Your task to perform on an android device: Clear the shopping cart on bestbuy.com. Add lenovo thinkpad to the cart on bestbuy.com Image 0: 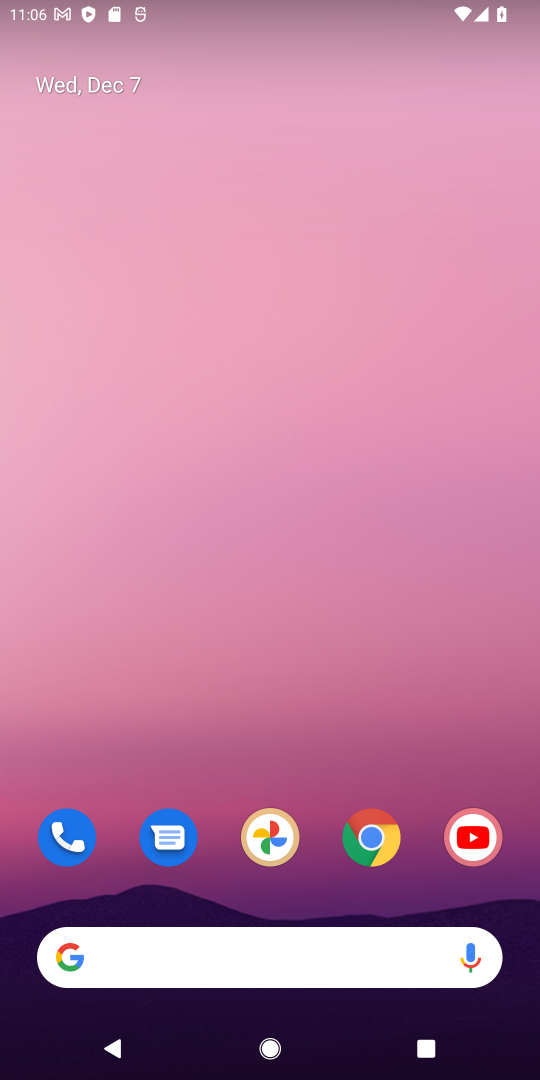
Step 0: click (362, 839)
Your task to perform on an android device: Clear the shopping cart on bestbuy.com. Add lenovo thinkpad to the cart on bestbuy.com Image 1: 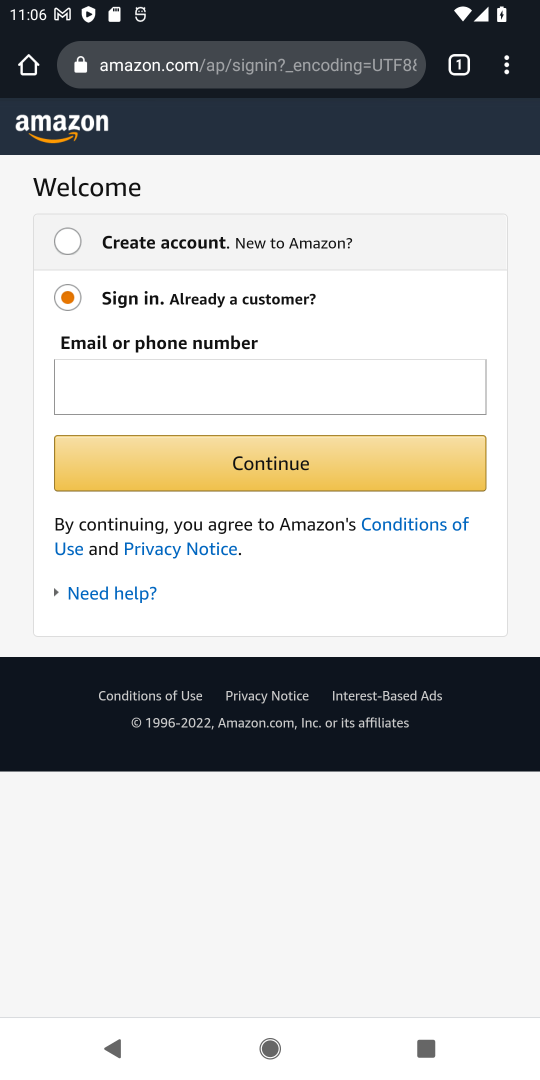
Step 1: click (292, 72)
Your task to perform on an android device: Clear the shopping cart on bestbuy.com. Add lenovo thinkpad to the cart on bestbuy.com Image 2: 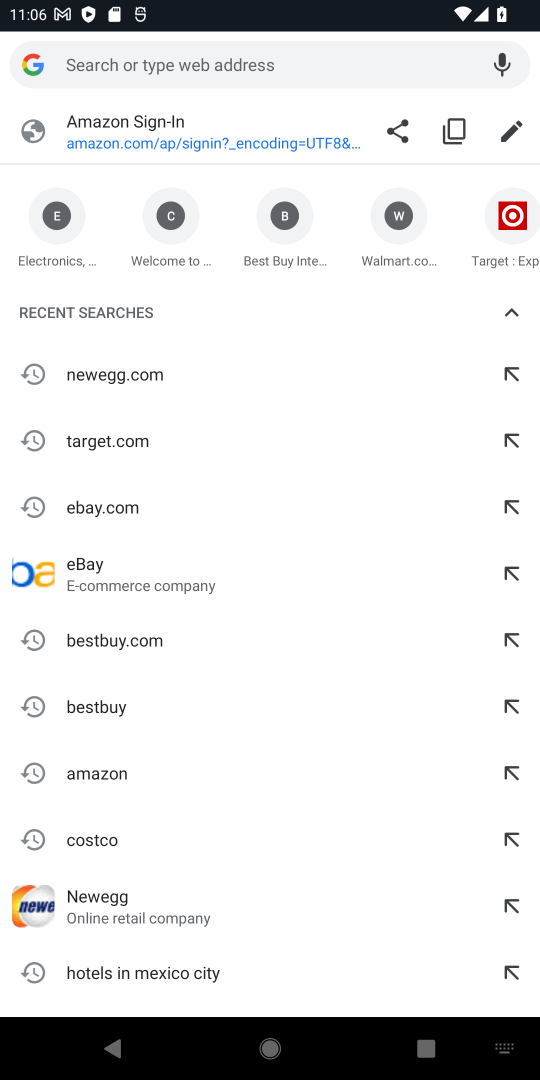
Step 2: click (128, 644)
Your task to perform on an android device: Clear the shopping cart on bestbuy.com. Add lenovo thinkpad to the cart on bestbuy.com Image 3: 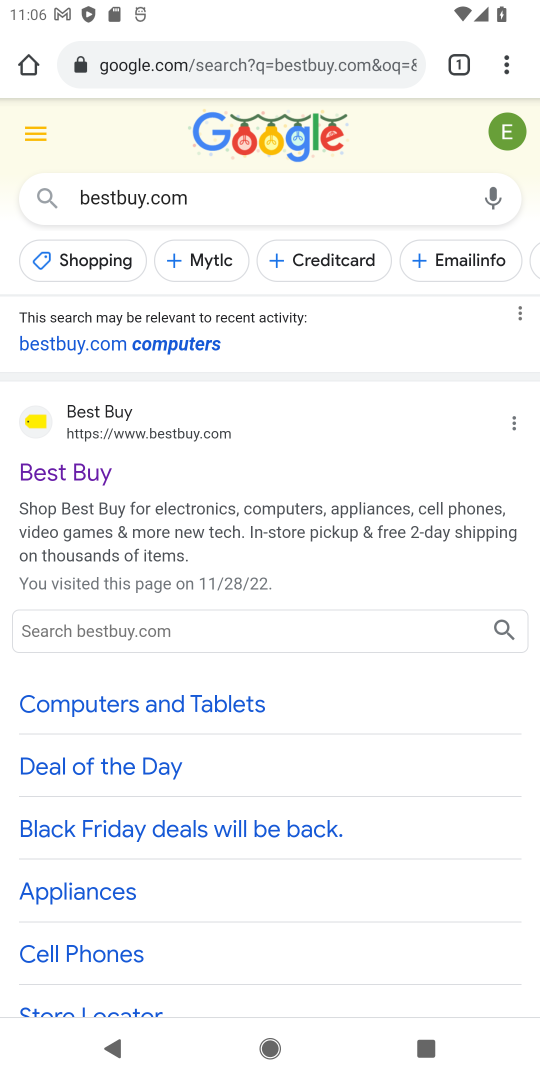
Step 3: click (149, 430)
Your task to perform on an android device: Clear the shopping cart on bestbuy.com. Add lenovo thinkpad to the cart on bestbuy.com Image 4: 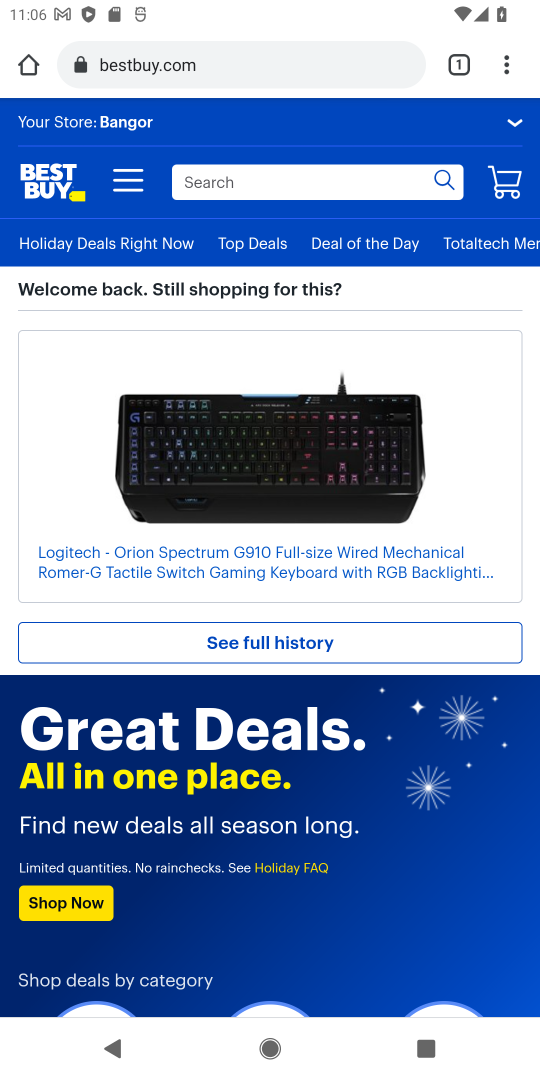
Step 4: click (512, 188)
Your task to perform on an android device: Clear the shopping cart on bestbuy.com. Add lenovo thinkpad to the cart on bestbuy.com Image 5: 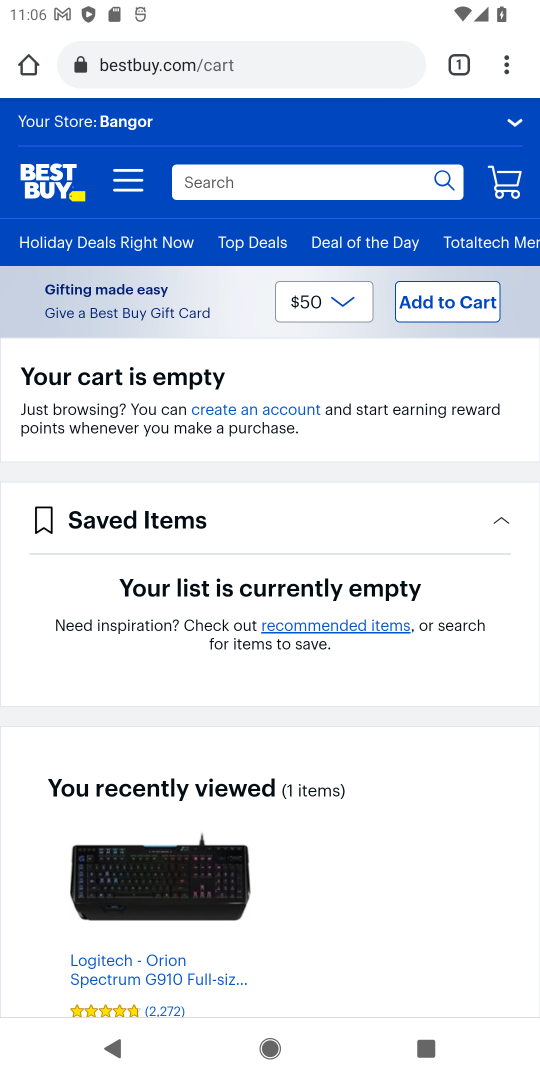
Step 5: click (372, 183)
Your task to perform on an android device: Clear the shopping cart on bestbuy.com. Add lenovo thinkpad to the cart on bestbuy.com Image 6: 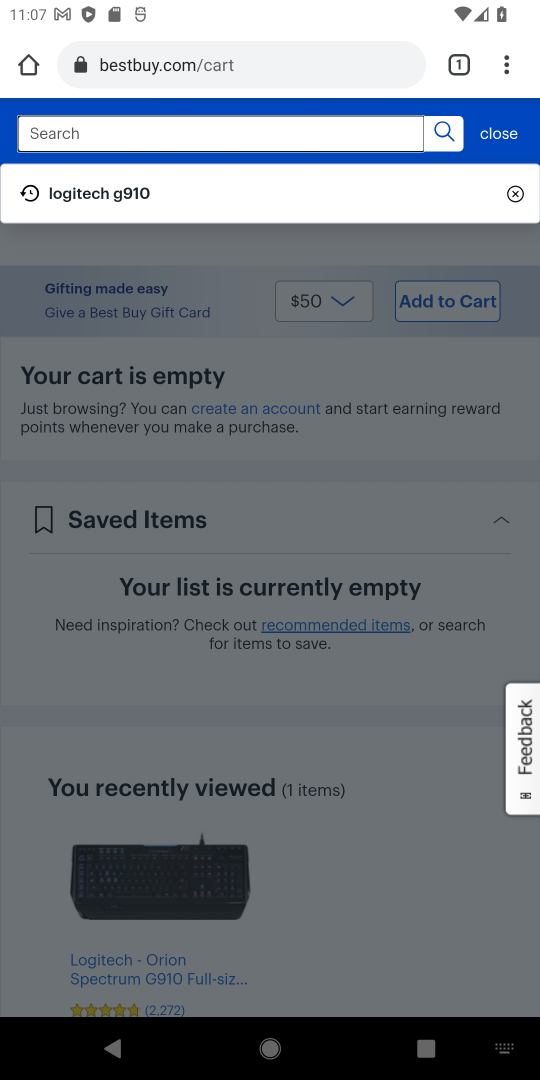
Step 6: type " lenovo thinkpad"
Your task to perform on an android device: Clear the shopping cart on bestbuy.com. Add lenovo thinkpad to the cart on bestbuy.com Image 7: 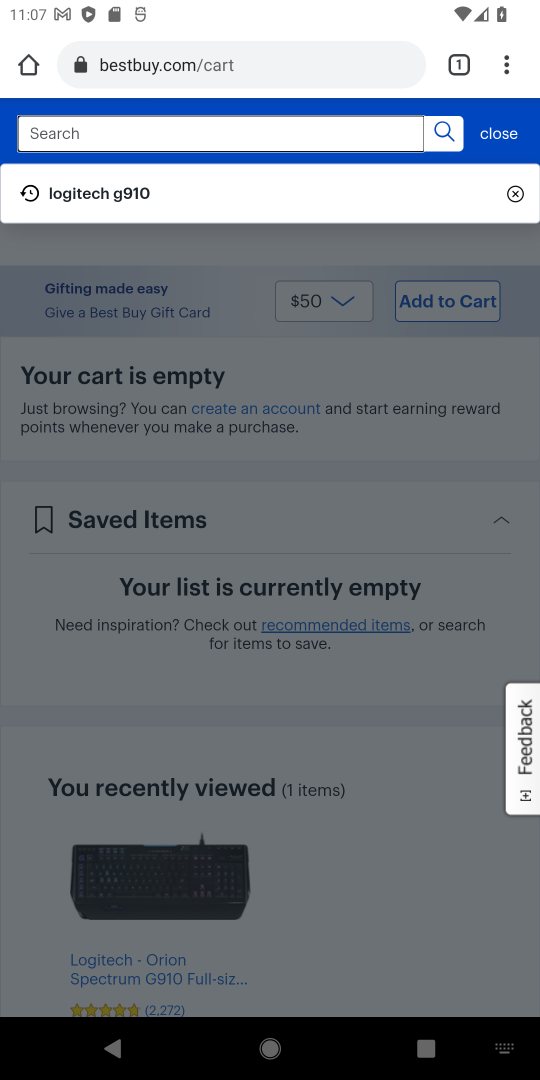
Step 7: press enter
Your task to perform on an android device: Clear the shopping cart on bestbuy.com. Add lenovo thinkpad to the cart on bestbuy.com Image 8: 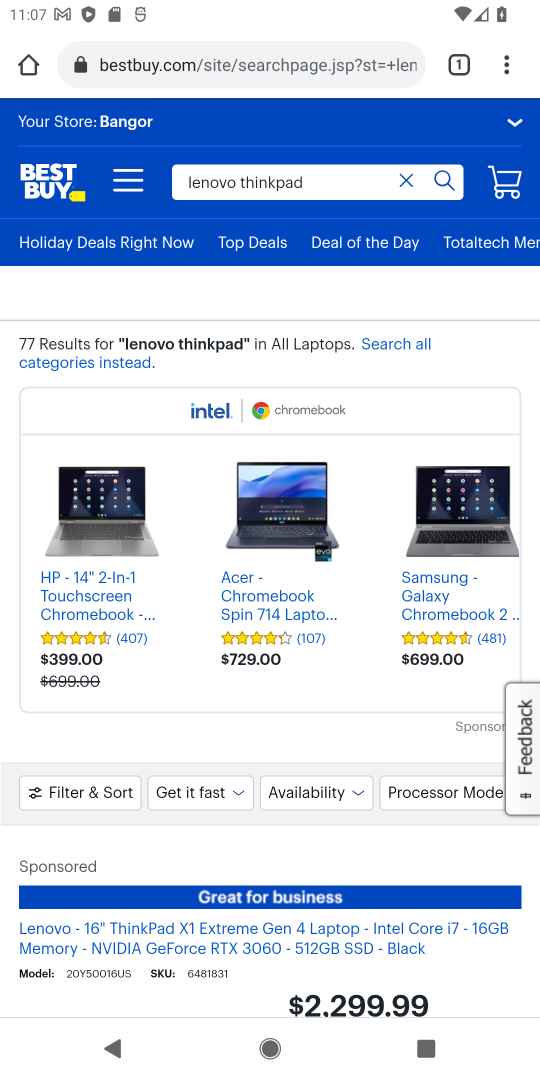
Step 8: drag from (418, 641) to (387, 257)
Your task to perform on an android device: Clear the shopping cart on bestbuy.com. Add lenovo thinkpad to the cart on bestbuy.com Image 9: 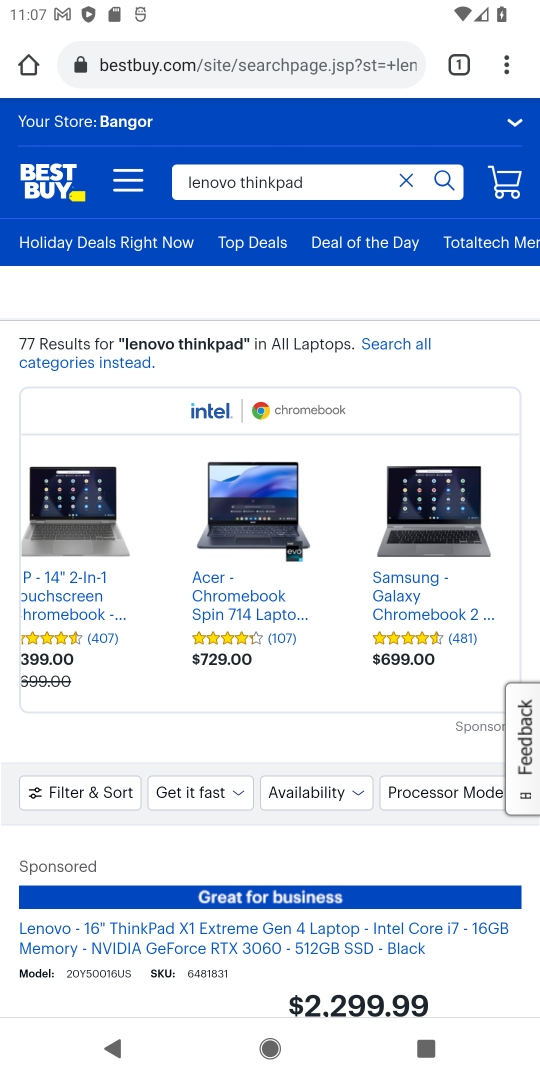
Step 9: drag from (401, 637) to (442, 317)
Your task to perform on an android device: Clear the shopping cart on bestbuy.com. Add lenovo thinkpad to the cart on bestbuy.com Image 10: 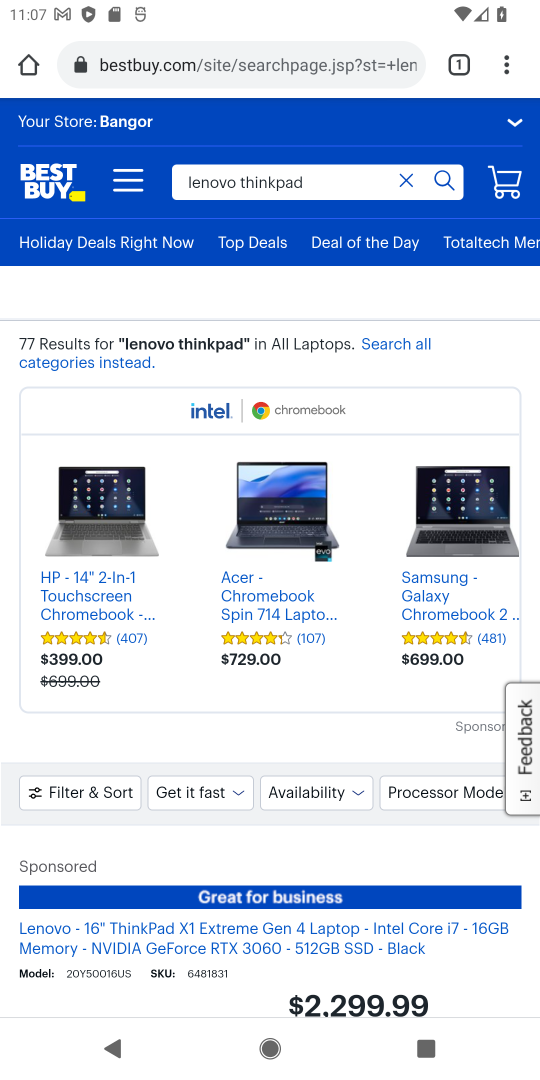
Step 10: drag from (391, 758) to (408, 438)
Your task to perform on an android device: Clear the shopping cart on bestbuy.com. Add lenovo thinkpad to the cart on bestbuy.com Image 11: 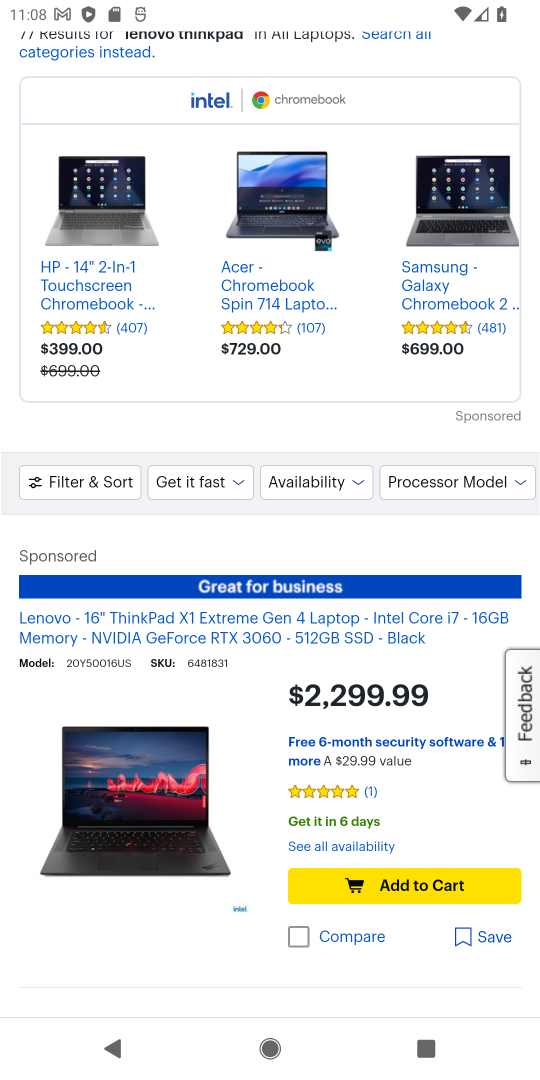
Step 11: drag from (393, 776) to (466, 379)
Your task to perform on an android device: Clear the shopping cart on bestbuy.com. Add lenovo thinkpad to the cart on bestbuy.com Image 12: 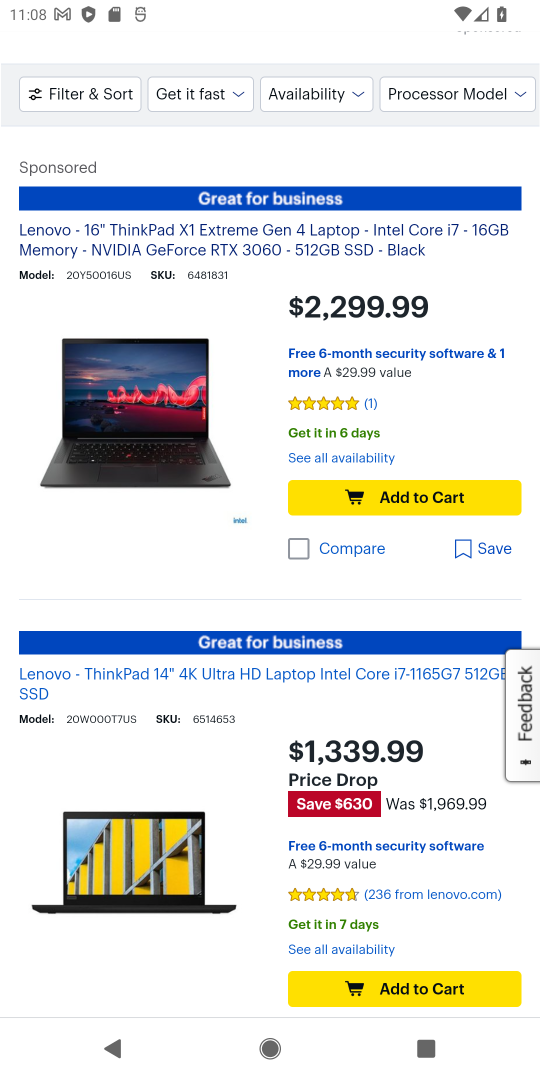
Step 12: click (120, 376)
Your task to perform on an android device: Clear the shopping cart on bestbuy.com. Add lenovo thinkpad to the cart on bestbuy.com Image 13: 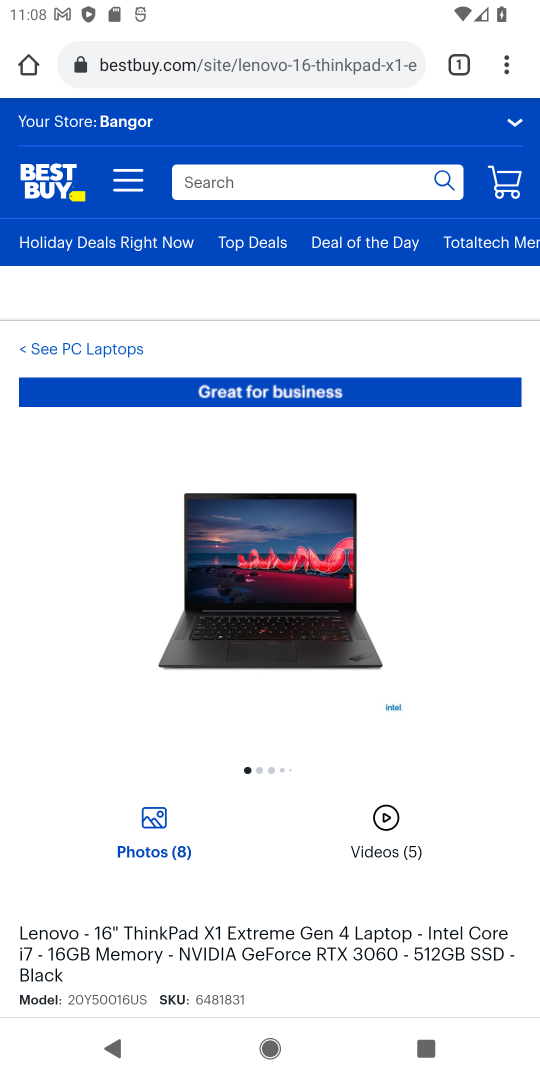
Step 13: drag from (441, 540) to (437, 127)
Your task to perform on an android device: Clear the shopping cart on bestbuy.com. Add lenovo thinkpad to the cart on bestbuy.com Image 14: 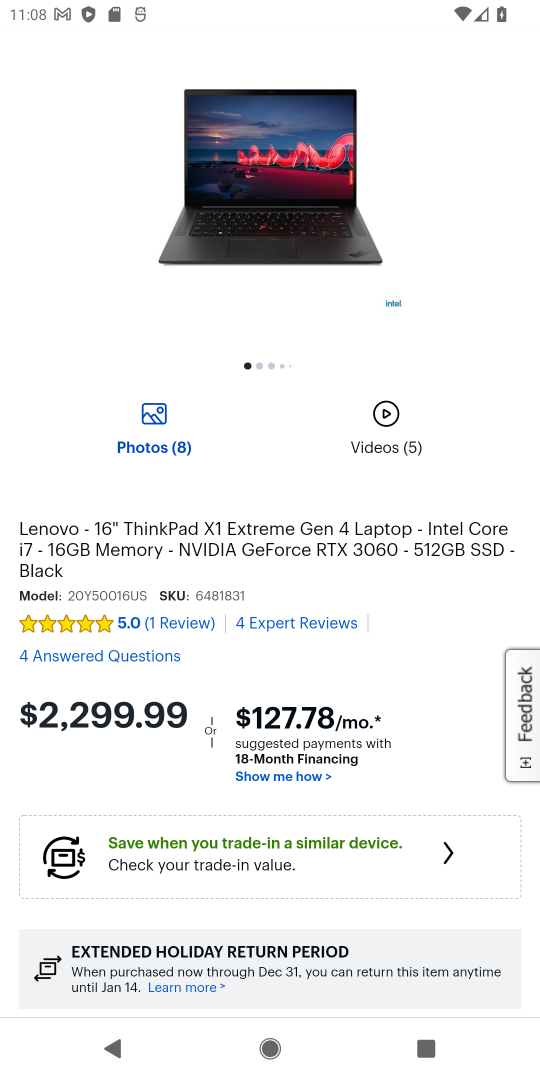
Step 14: drag from (441, 750) to (431, 333)
Your task to perform on an android device: Clear the shopping cart on bestbuy.com. Add lenovo thinkpad to the cart on bestbuy.com Image 15: 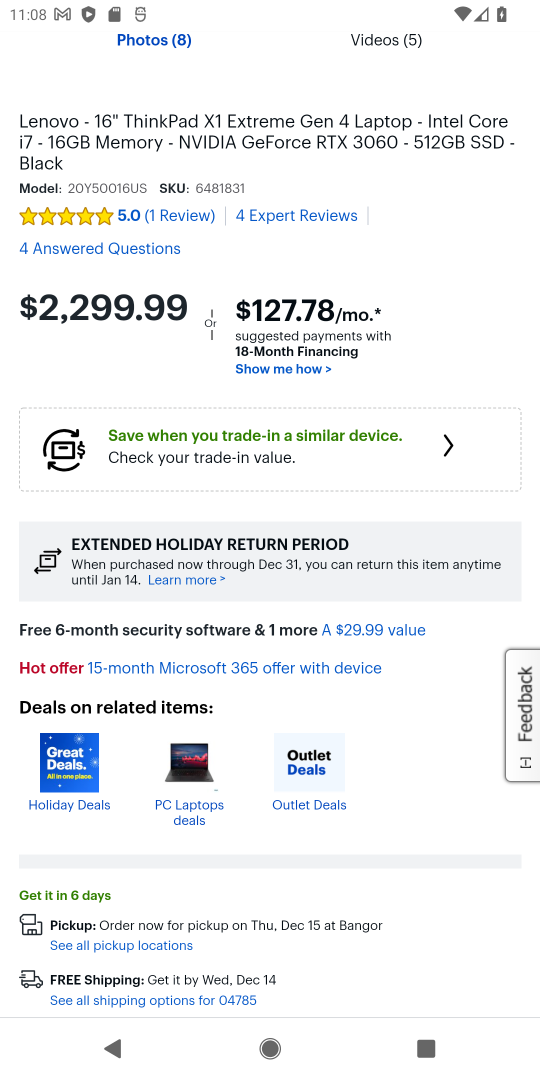
Step 15: drag from (449, 833) to (409, 372)
Your task to perform on an android device: Clear the shopping cart on bestbuy.com. Add lenovo thinkpad to the cart on bestbuy.com Image 16: 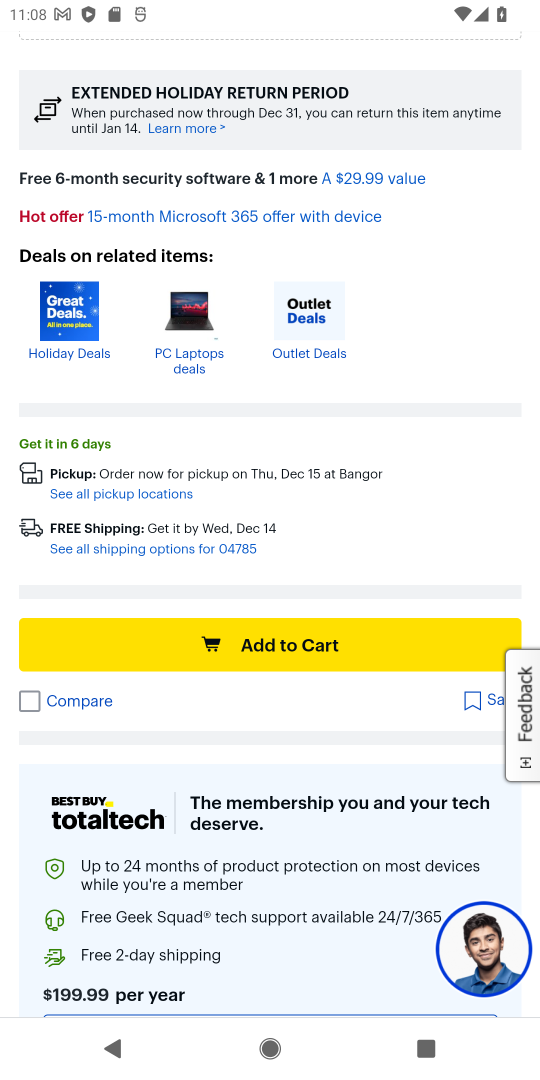
Step 16: click (285, 642)
Your task to perform on an android device: Clear the shopping cart on bestbuy.com. Add lenovo thinkpad to the cart on bestbuy.com Image 17: 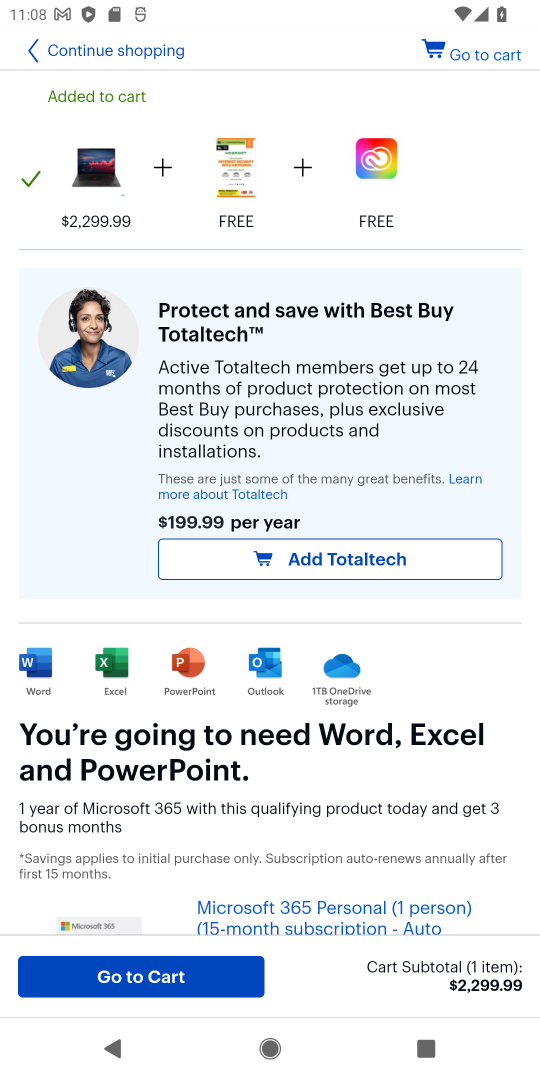
Step 17: click (193, 981)
Your task to perform on an android device: Clear the shopping cart on bestbuy.com. Add lenovo thinkpad to the cart on bestbuy.com Image 18: 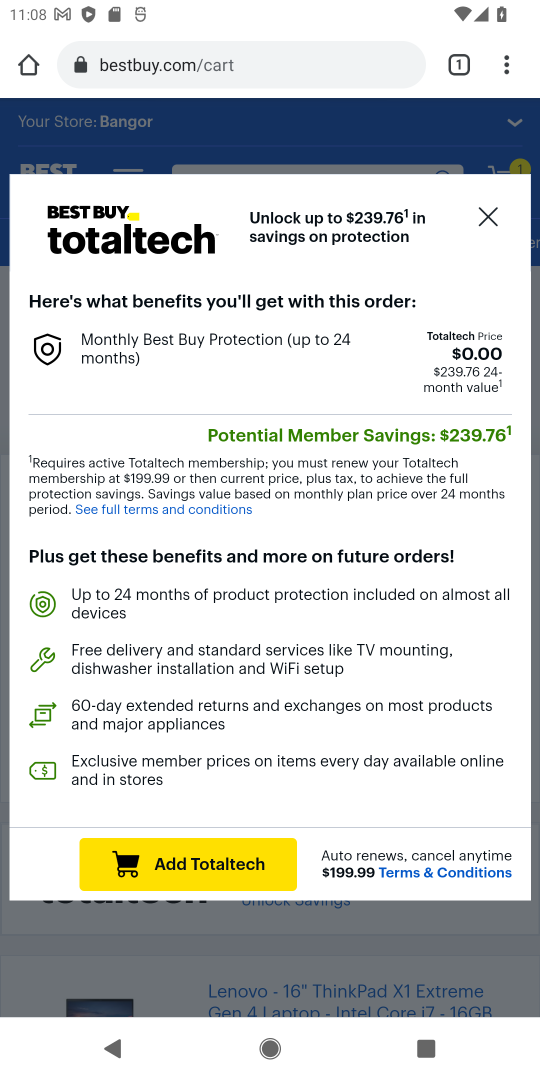
Step 18: click (487, 216)
Your task to perform on an android device: Clear the shopping cart on bestbuy.com. Add lenovo thinkpad to the cart on bestbuy.com Image 19: 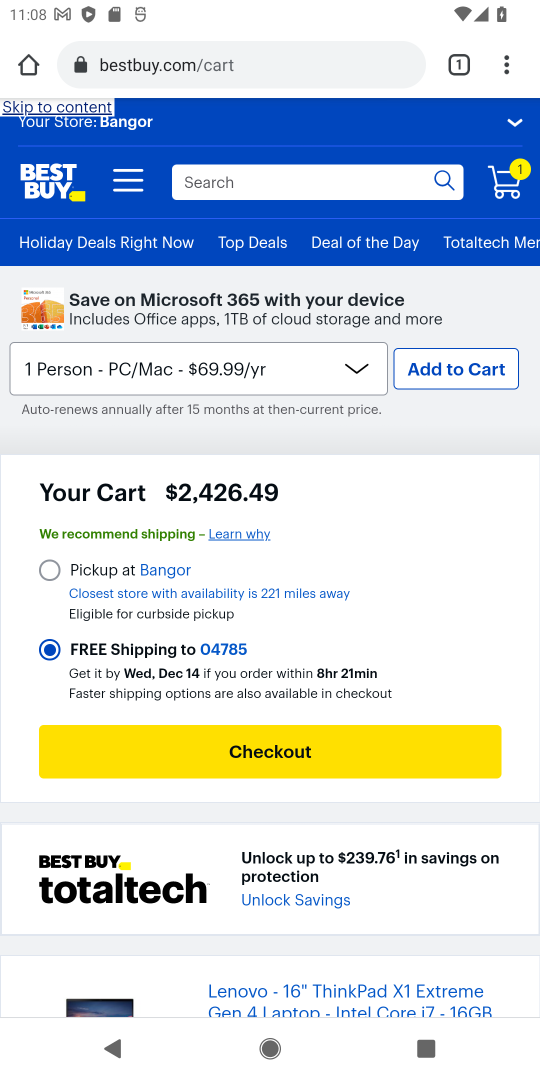
Step 19: task complete